Your task to perform on an android device: Open calendar and show me the third week of next month Image 0: 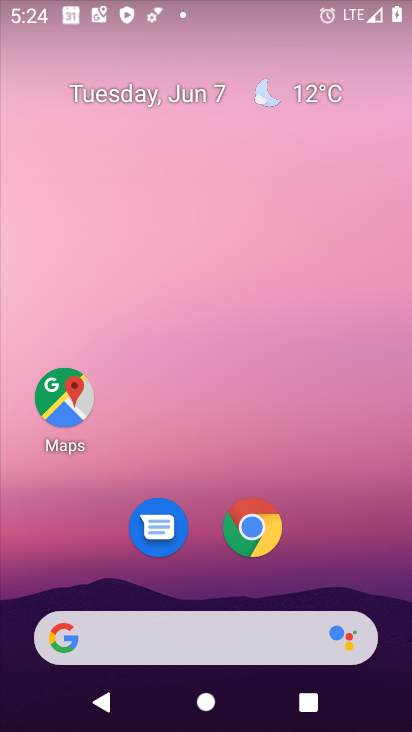
Step 0: drag from (325, 556) to (284, 68)
Your task to perform on an android device: Open calendar and show me the third week of next month Image 1: 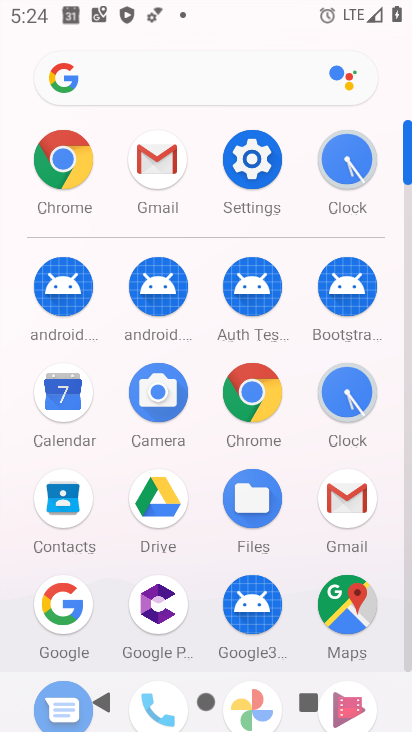
Step 1: click (66, 393)
Your task to perform on an android device: Open calendar and show me the third week of next month Image 2: 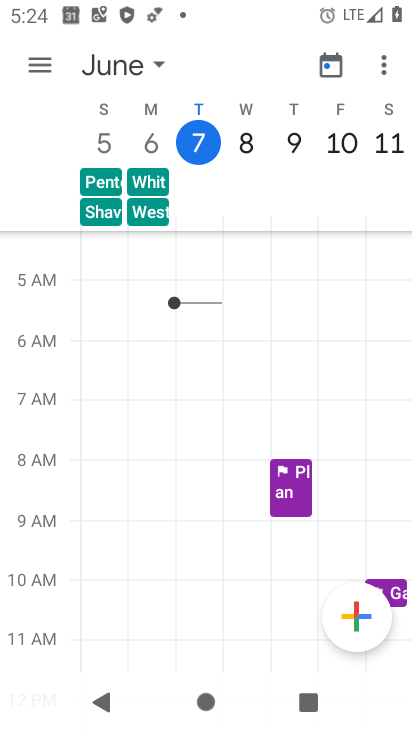
Step 2: click (336, 66)
Your task to perform on an android device: Open calendar and show me the third week of next month Image 3: 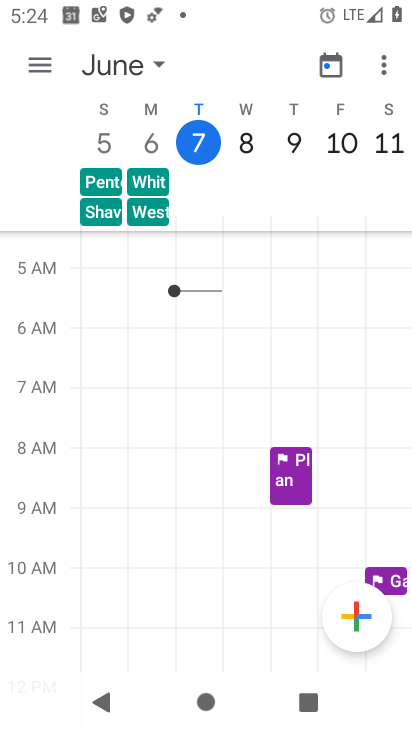
Step 3: click (162, 62)
Your task to perform on an android device: Open calendar and show me the third week of next month Image 4: 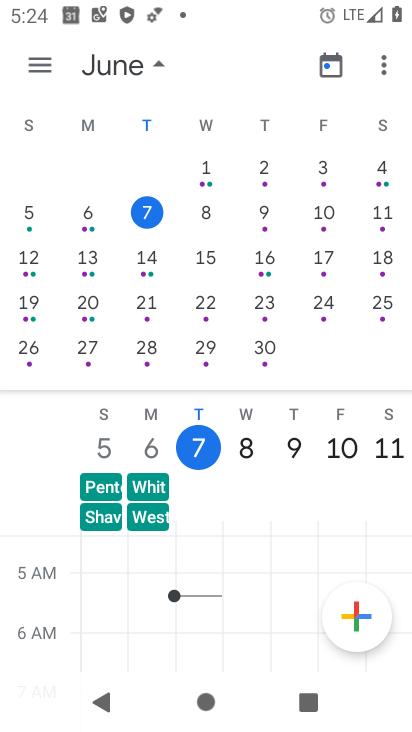
Step 4: drag from (357, 270) to (1, 255)
Your task to perform on an android device: Open calendar and show me the third week of next month Image 5: 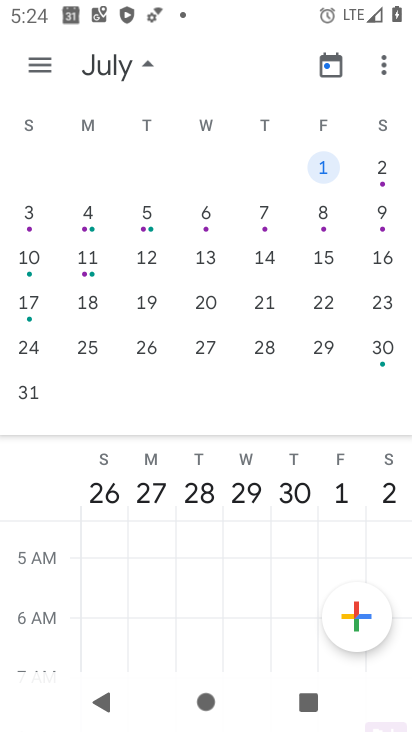
Step 5: click (96, 307)
Your task to perform on an android device: Open calendar and show me the third week of next month Image 6: 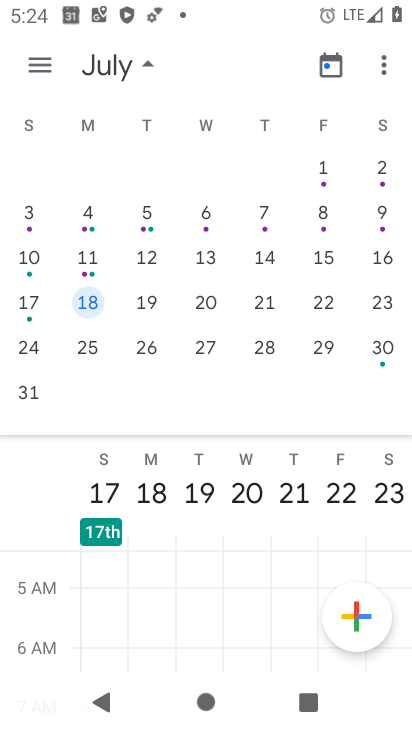
Step 6: click (38, 59)
Your task to perform on an android device: Open calendar and show me the third week of next month Image 7: 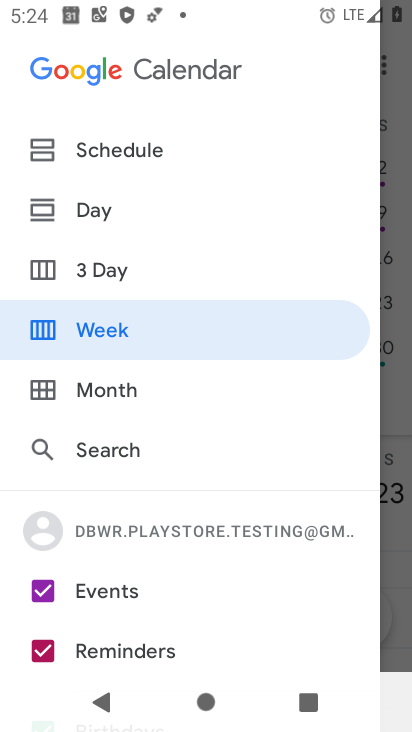
Step 7: click (103, 331)
Your task to perform on an android device: Open calendar and show me the third week of next month Image 8: 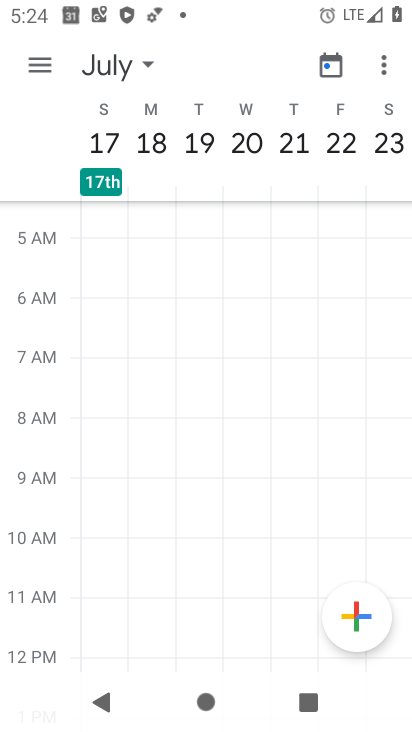
Step 8: task complete